Your task to perform on an android device: Check the news Image 0: 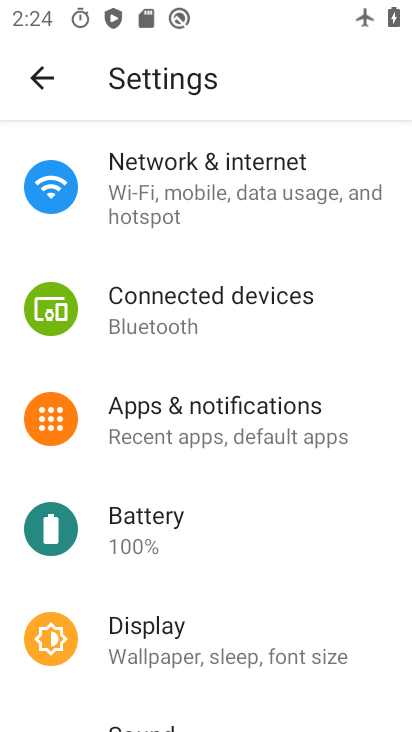
Step 0: press home button
Your task to perform on an android device: Check the news Image 1: 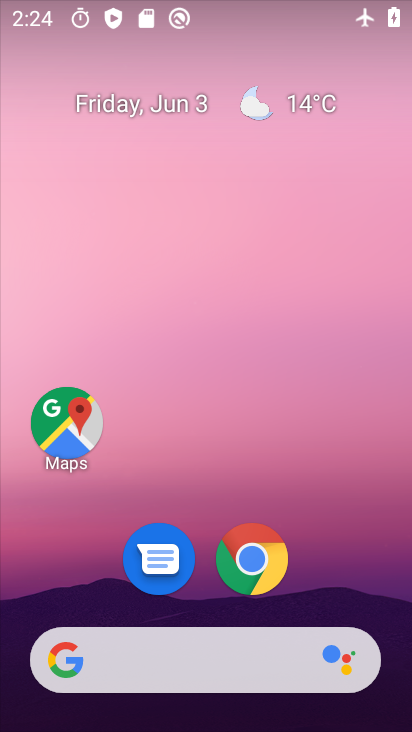
Step 1: drag from (207, 615) to (206, 15)
Your task to perform on an android device: Check the news Image 2: 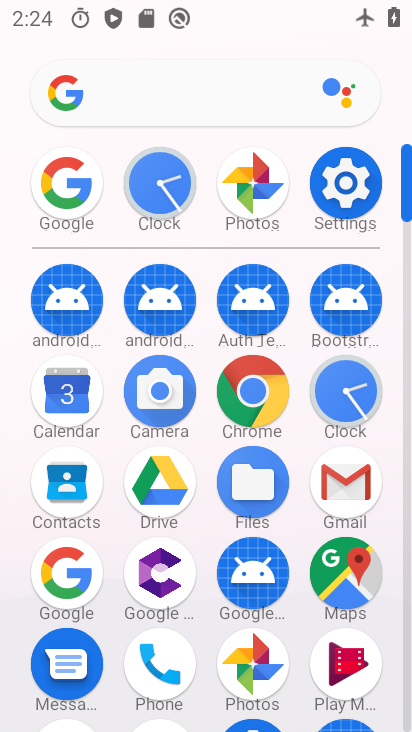
Step 2: click (68, 555)
Your task to perform on an android device: Check the news Image 3: 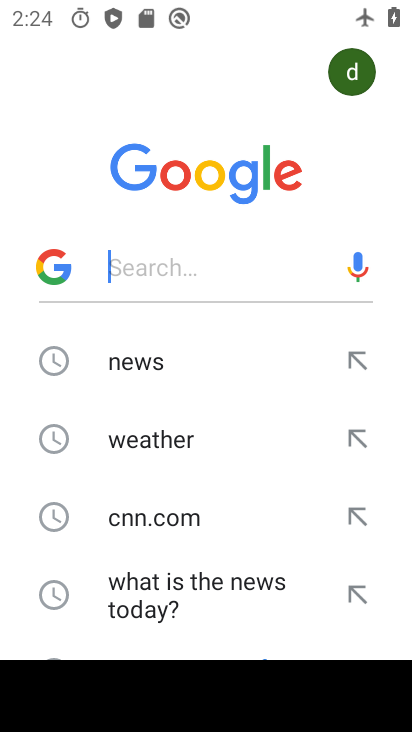
Step 3: click (108, 368)
Your task to perform on an android device: Check the news Image 4: 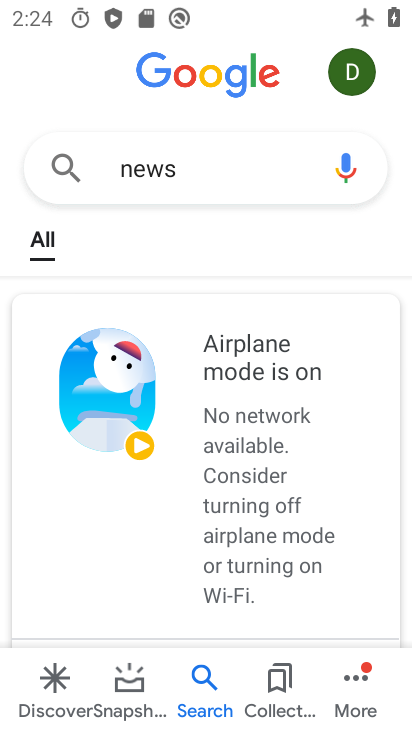
Step 4: task complete